Your task to perform on an android device: Go to battery settings Image 0: 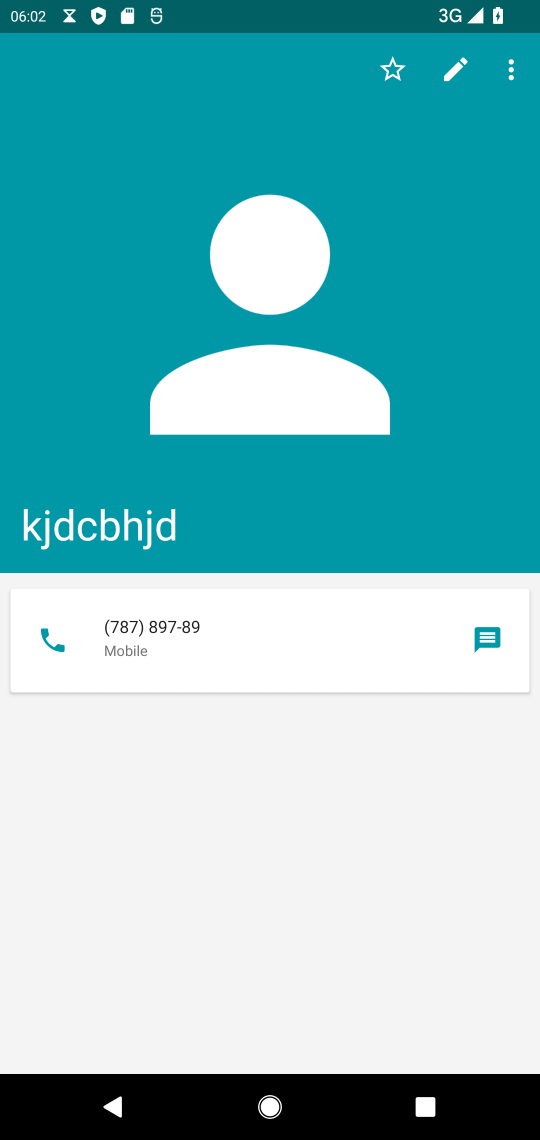
Step 0: press home button
Your task to perform on an android device: Go to battery settings Image 1: 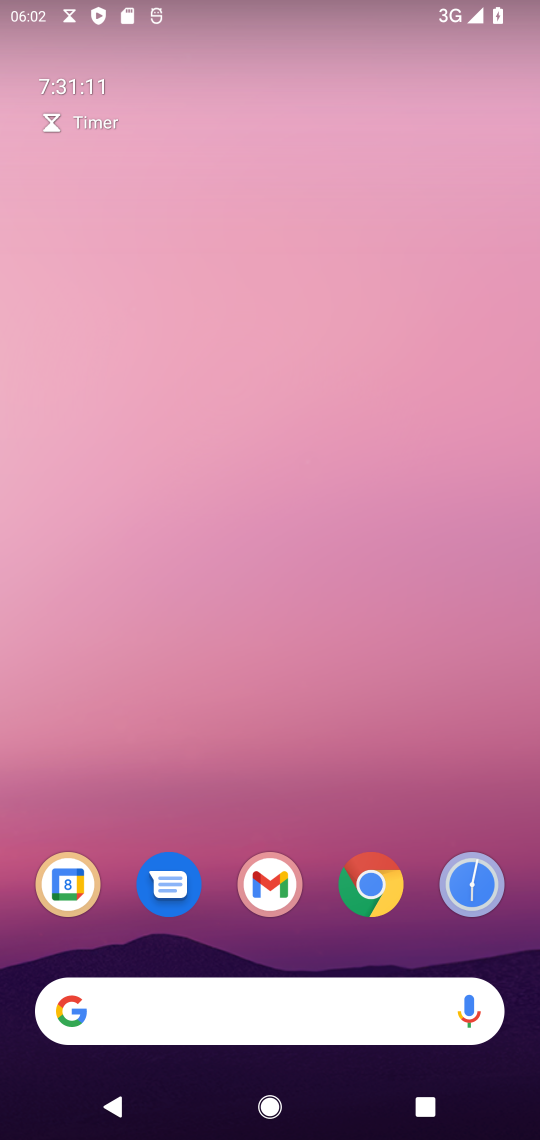
Step 1: drag from (326, 851) to (278, 192)
Your task to perform on an android device: Go to battery settings Image 2: 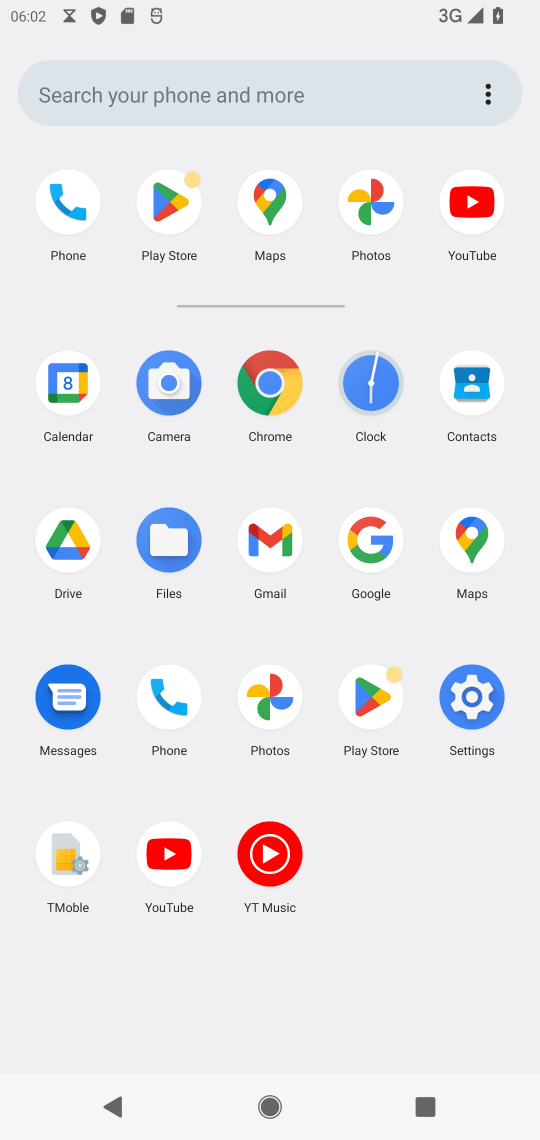
Step 2: click (466, 692)
Your task to perform on an android device: Go to battery settings Image 3: 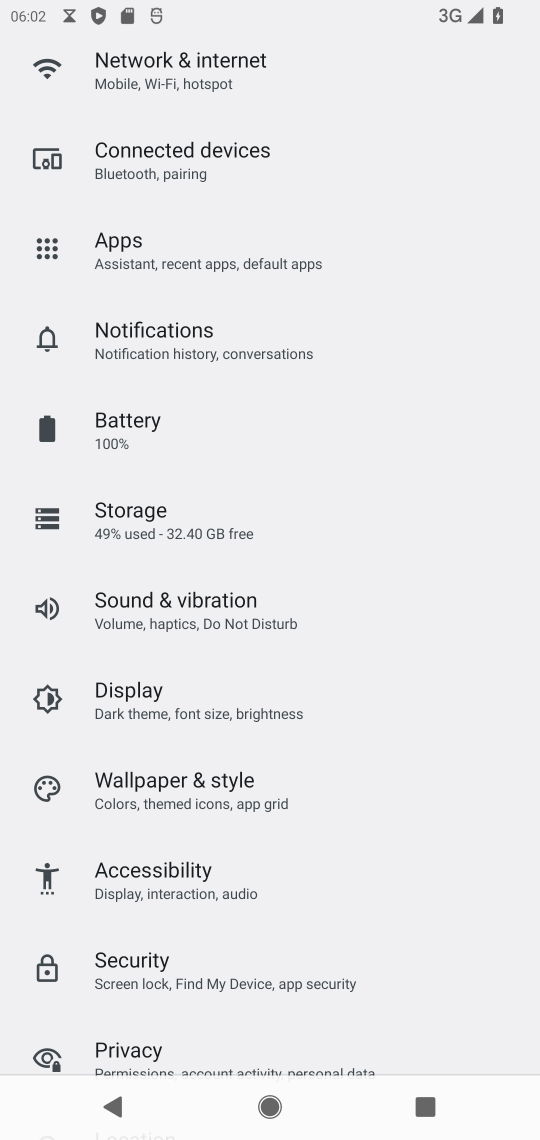
Step 3: click (145, 415)
Your task to perform on an android device: Go to battery settings Image 4: 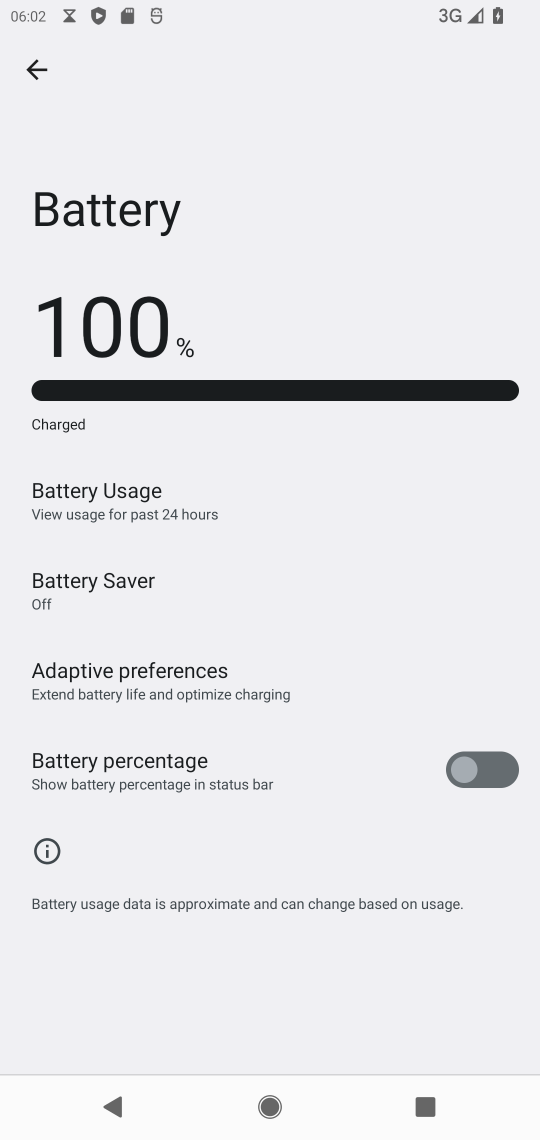
Step 4: task complete